Your task to perform on an android device: read, delete, or share a saved page in the chrome app Image 0: 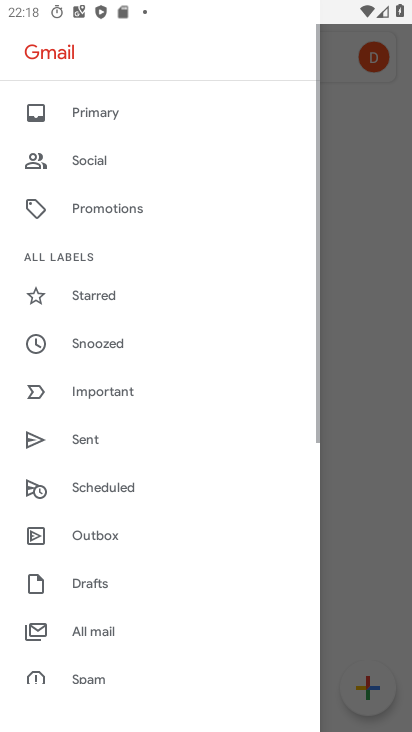
Step 0: press home button
Your task to perform on an android device: read, delete, or share a saved page in the chrome app Image 1: 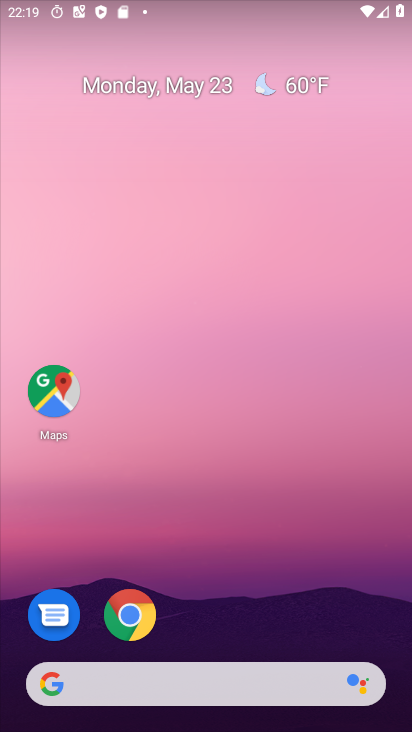
Step 1: click (133, 613)
Your task to perform on an android device: read, delete, or share a saved page in the chrome app Image 2: 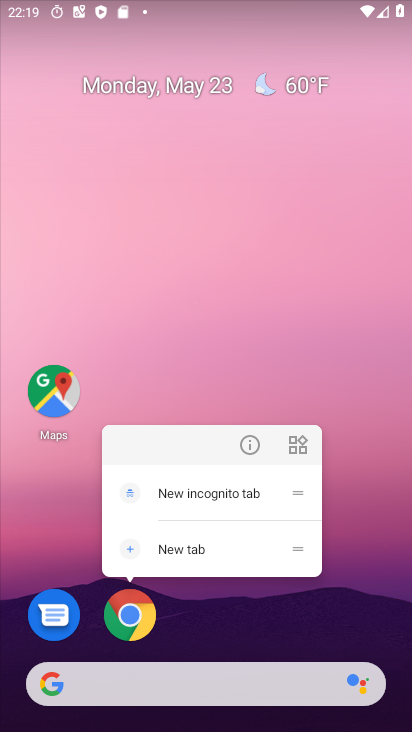
Step 2: click (248, 309)
Your task to perform on an android device: read, delete, or share a saved page in the chrome app Image 3: 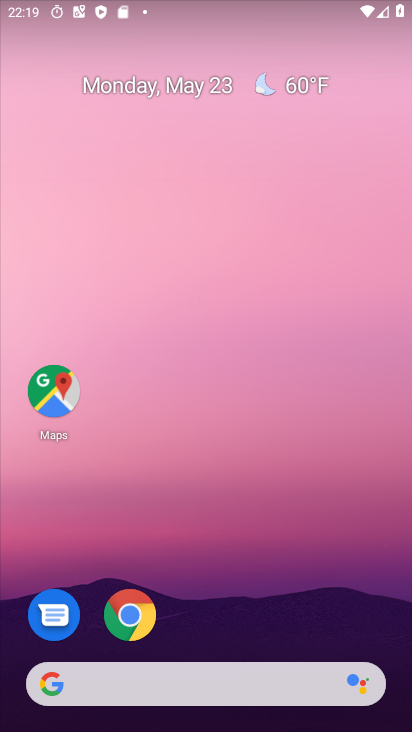
Step 3: click (129, 614)
Your task to perform on an android device: read, delete, or share a saved page in the chrome app Image 4: 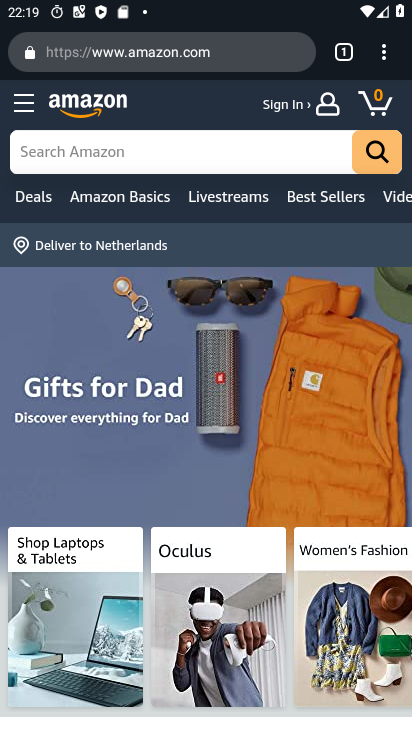
Step 4: click (377, 50)
Your task to perform on an android device: read, delete, or share a saved page in the chrome app Image 5: 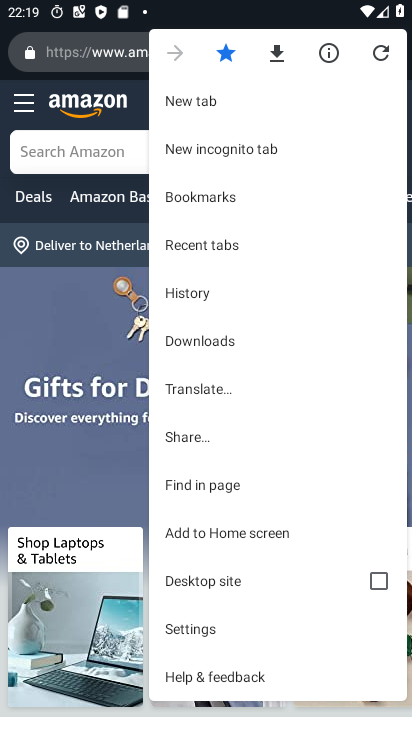
Step 5: click (228, 337)
Your task to perform on an android device: read, delete, or share a saved page in the chrome app Image 6: 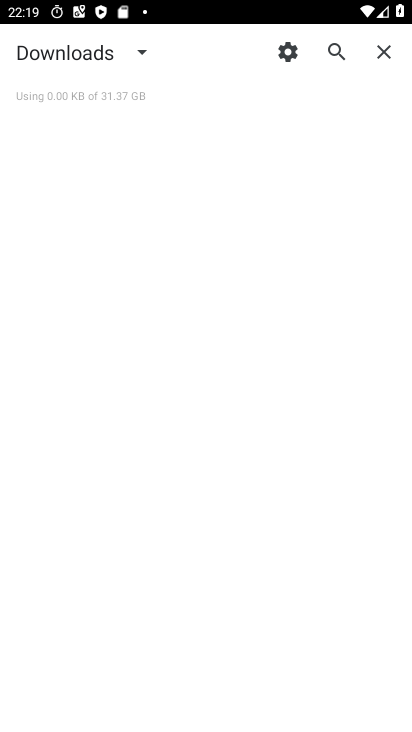
Step 6: task complete